Your task to perform on an android device: toggle show notifications on the lock screen Image 0: 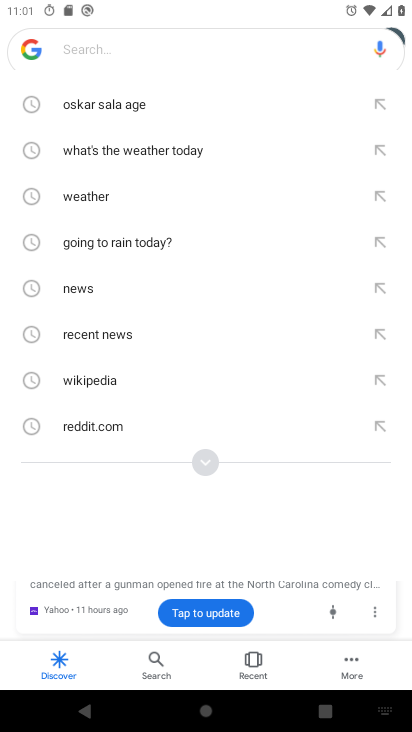
Step 0: press back button
Your task to perform on an android device: toggle show notifications on the lock screen Image 1: 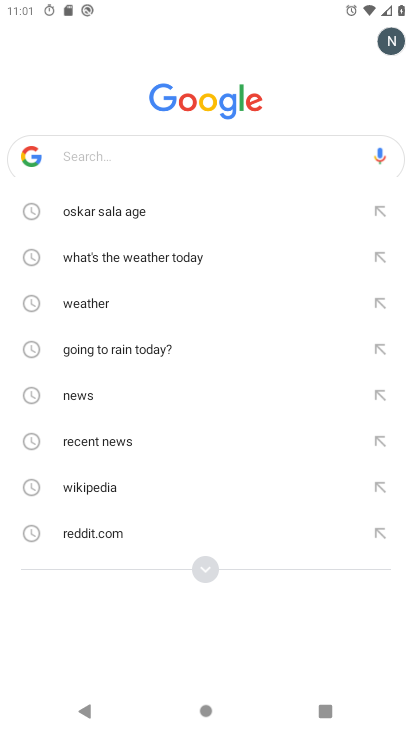
Step 1: press back button
Your task to perform on an android device: toggle show notifications on the lock screen Image 2: 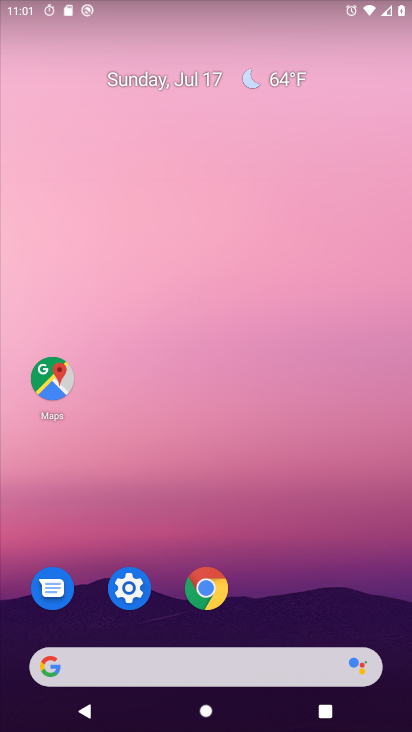
Step 2: drag from (226, 539) to (199, 27)
Your task to perform on an android device: toggle show notifications on the lock screen Image 3: 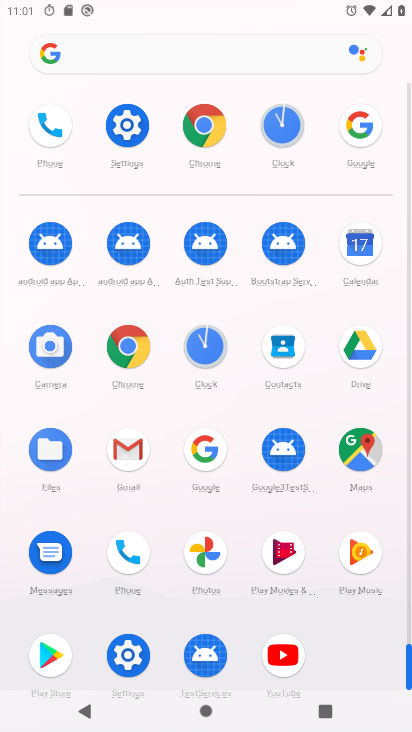
Step 3: click (131, 658)
Your task to perform on an android device: toggle show notifications on the lock screen Image 4: 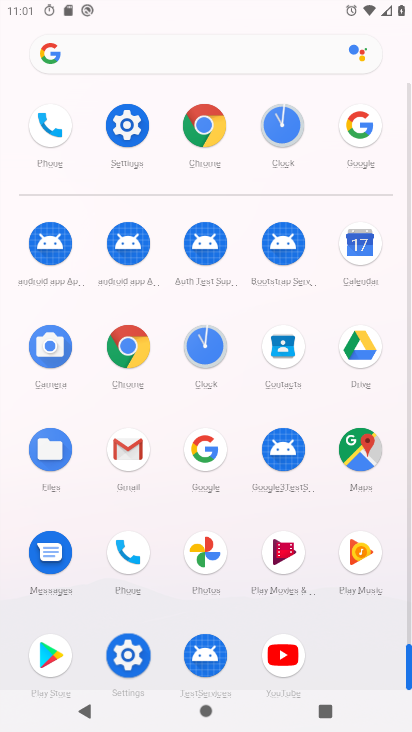
Step 4: click (119, 657)
Your task to perform on an android device: toggle show notifications on the lock screen Image 5: 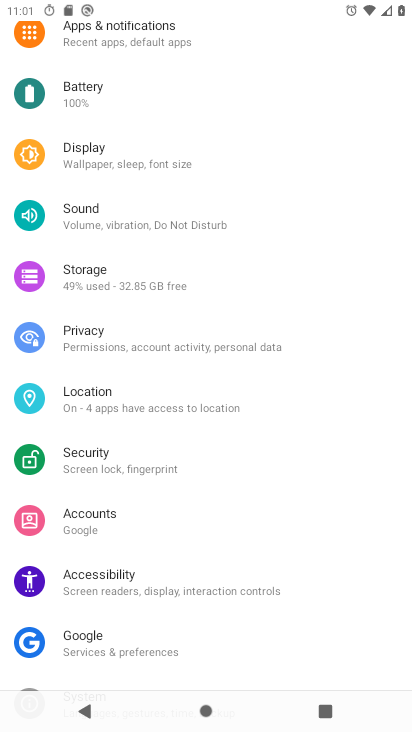
Step 5: click (119, 657)
Your task to perform on an android device: toggle show notifications on the lock screen Image 6: 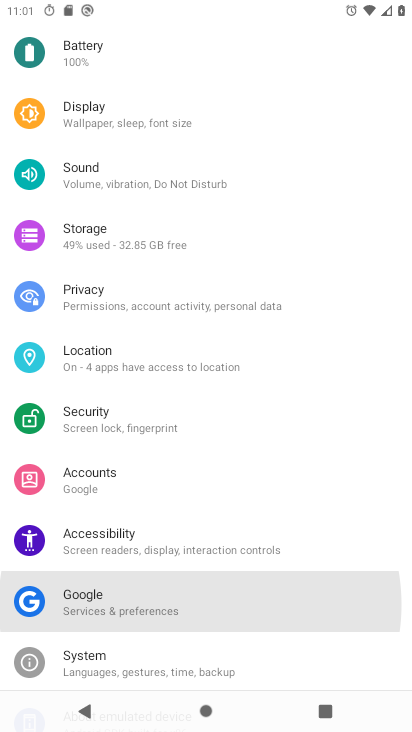
Step 6: click (128, 661)
Your task to perform on an android device: toggle show notifications on the lock screen Image 7: 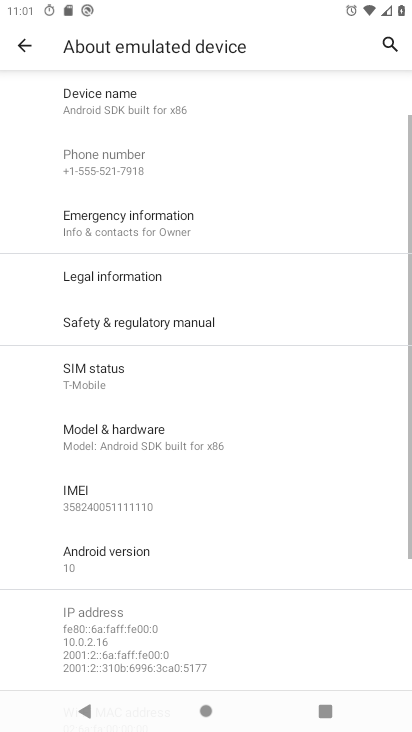
Step 7: click (26, 37)
Your task to perform on an android device: toggle show notifications on the lock screen Image 8: 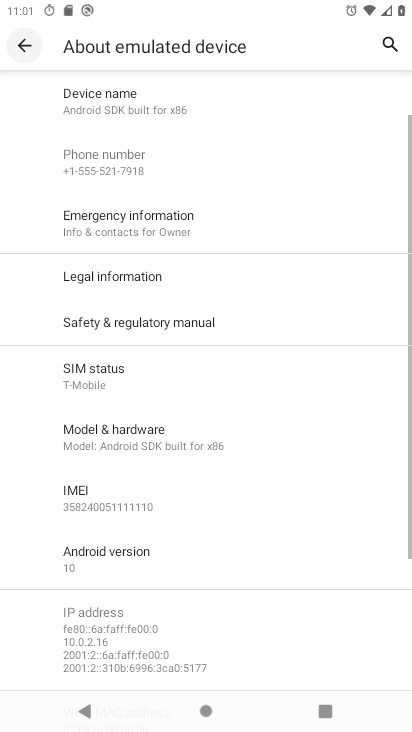
Step 8: click (25, 37)
Your task to perform on an android device: toggle show notifications on the lock screen Image 9: 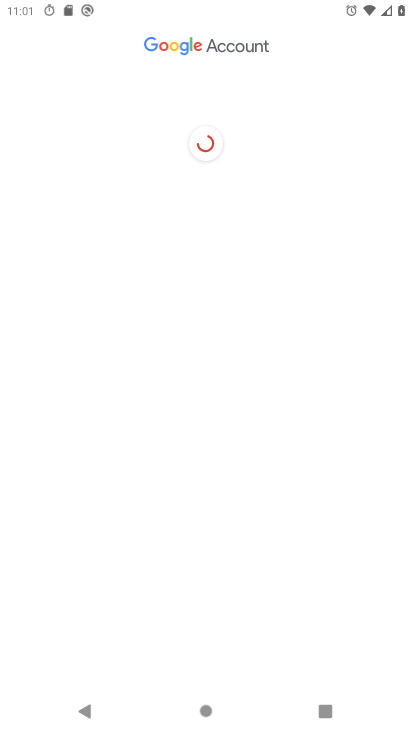
Step 9: press back button
Your task to perform on an android device: toggle show notifications on the lock screen Image 10: 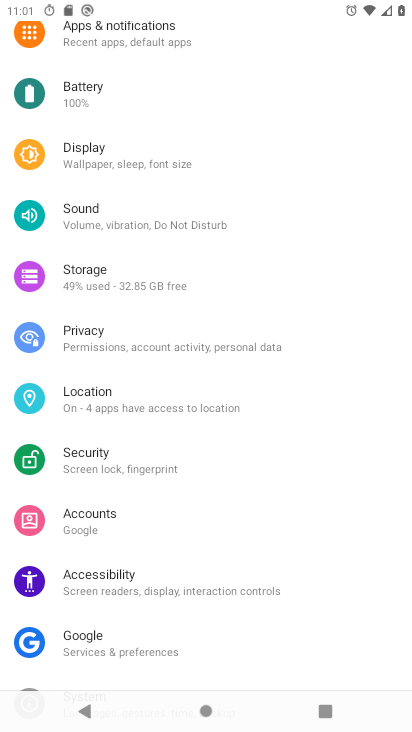
Step 10: click (124, 24)
Your task to perform on an android device: toggle show notifications on the lock screen Image 11: 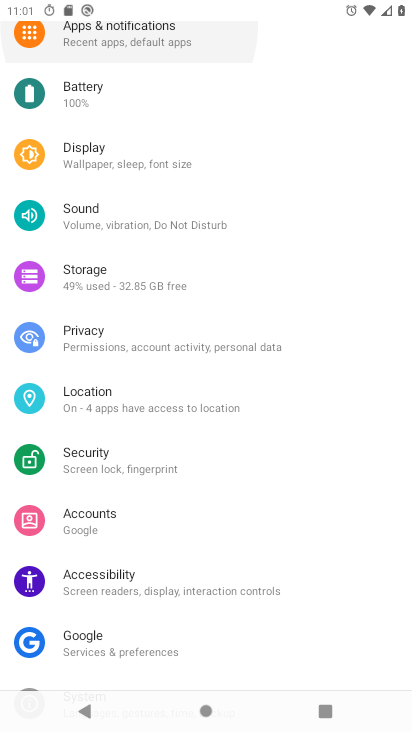
Step 11: click (124, 24)
Your task to perform on an android device: toggle show notifications on the lock screen Image 12: 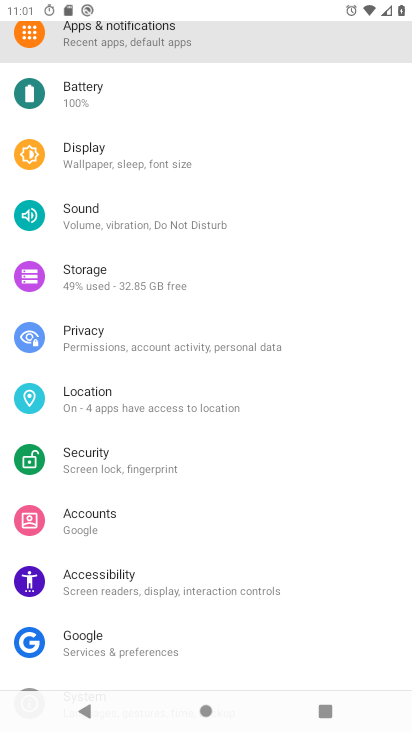
Step 12: click (124, 24)
Your task to perform on an android device: toggle show notifications on the lock screen Image 13: 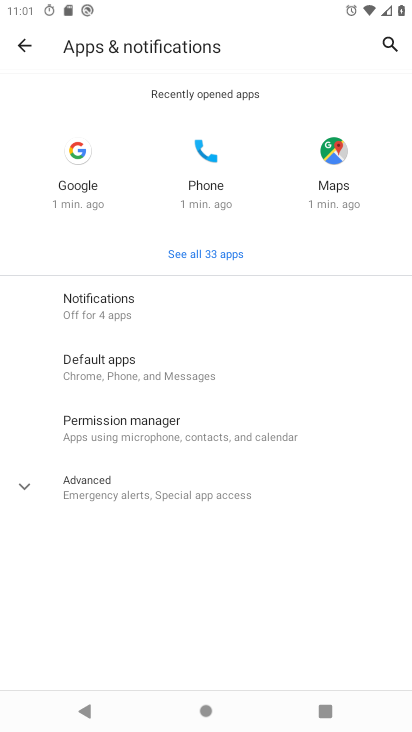
Step 13: click (83, 302)
Your task to perform on an android device: toggle show notifications on the lock screen Image 14: 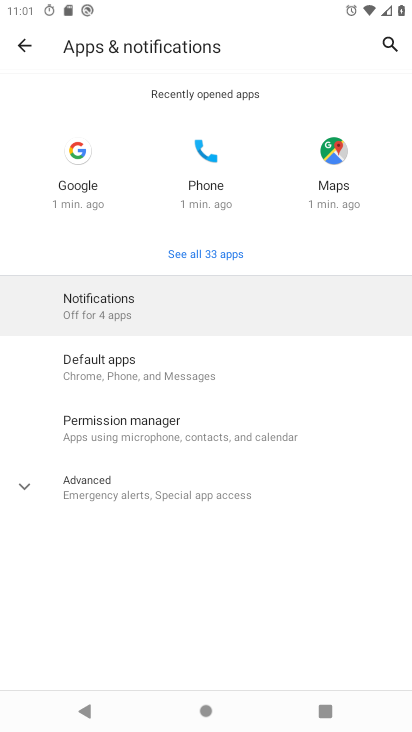
Step 14: click (100, 305)
Your task to perform on an android device: toggle show notifications on the lock screen Image 15: 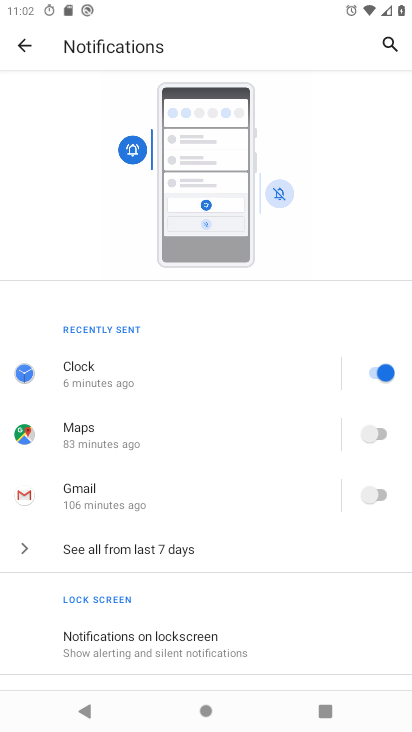
Step 15: click (136, 653)
Your task to perform on an android device: toggle show notifications on the lock screen Image 16: 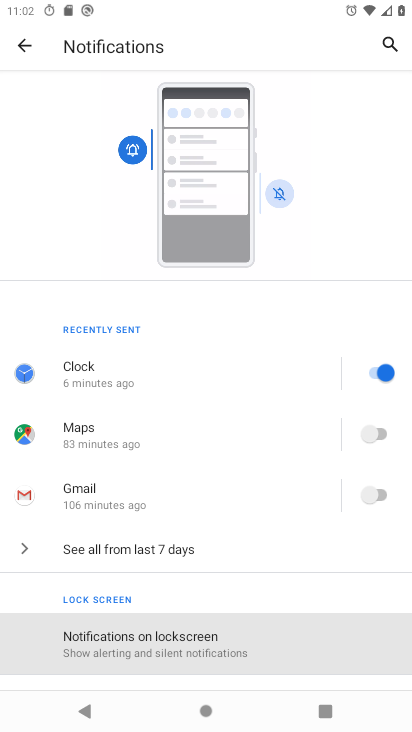
Step 16: click (135, 652)
Your task to perform on an android device: toggle show notifications on the lock screen Image 17: 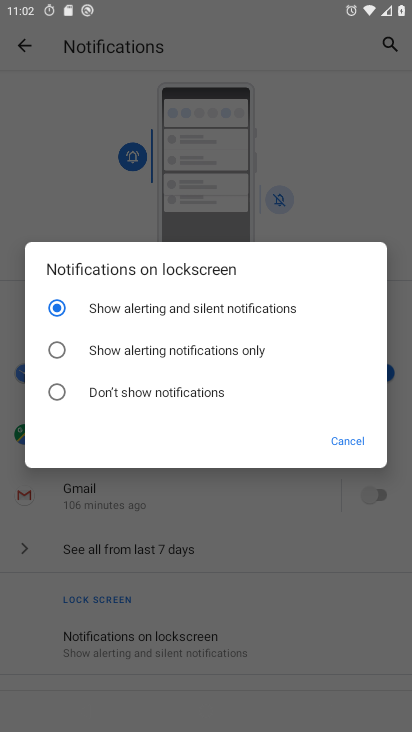
Step 17: click (146, 633)
Your task to perform on an android device: toggle show notifications on the lock screen Image 18: 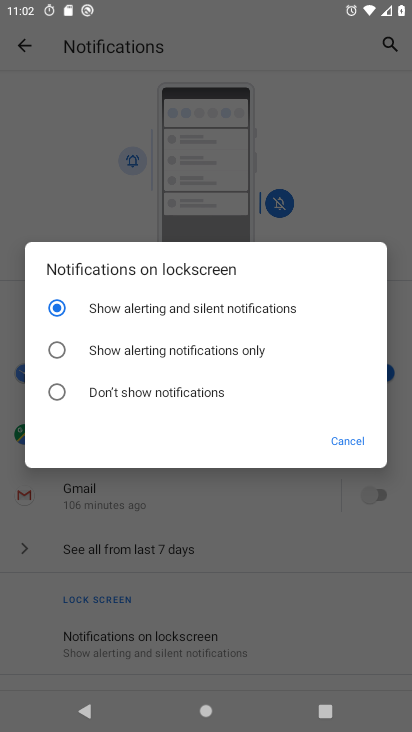
Step 18: click (48, 334)
Your task to perform on an android device: toggle show notifications on the lock screen Image 19: 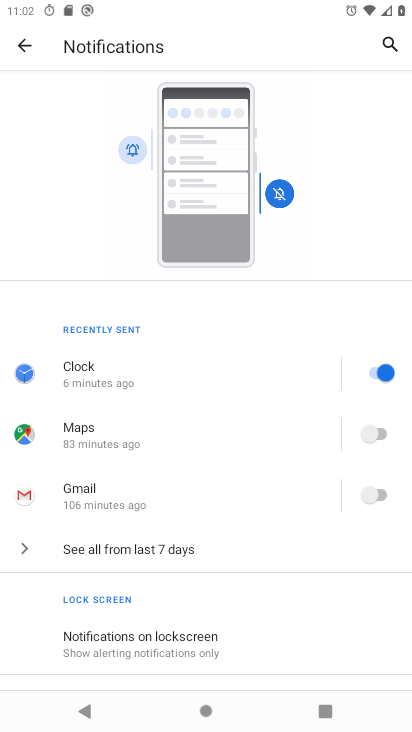
Step 19: task complete